Your task to perform on an android device: set the timer Image 0: 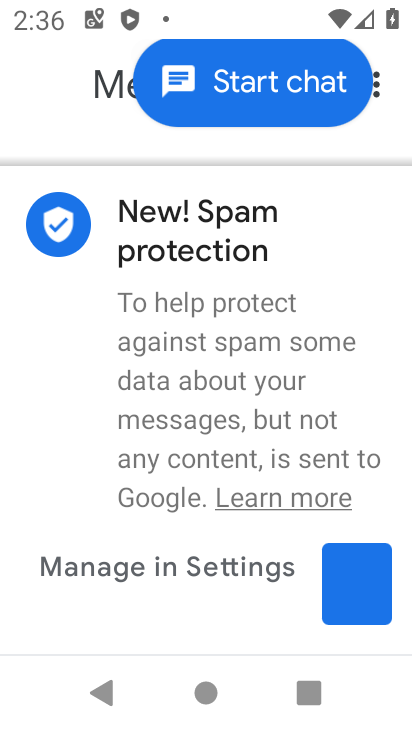
Step 0: press home button
Your task to perform on an android device: set the timer Image 1: 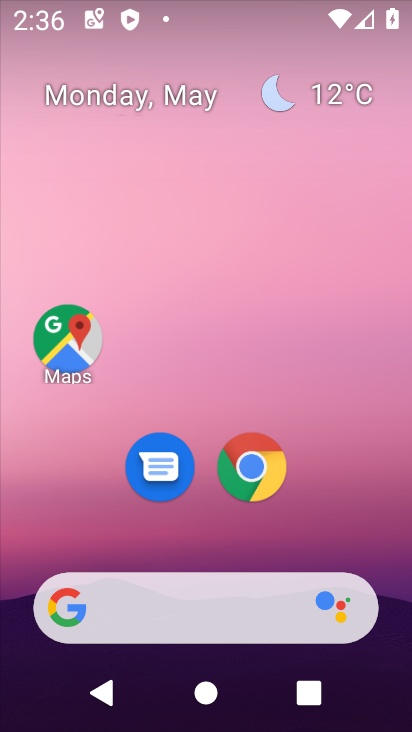
Step 1: drag from (381, 536) to (340, 205)
Your task to perform on an android device: set the timer Image 2: 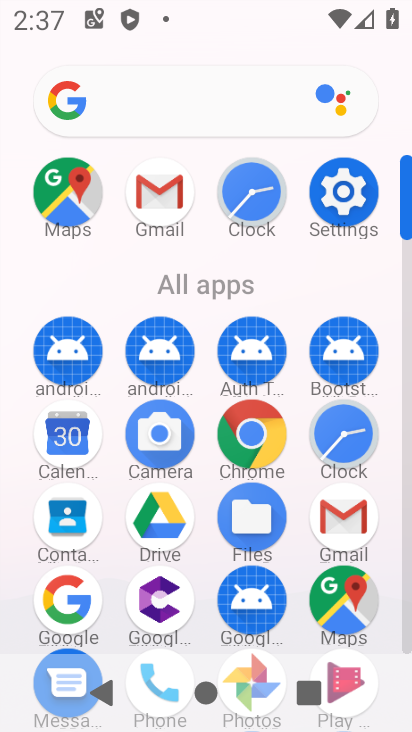
Step 2: click (342, 421)
Your task to perform on an android device: set the timer Image 3: 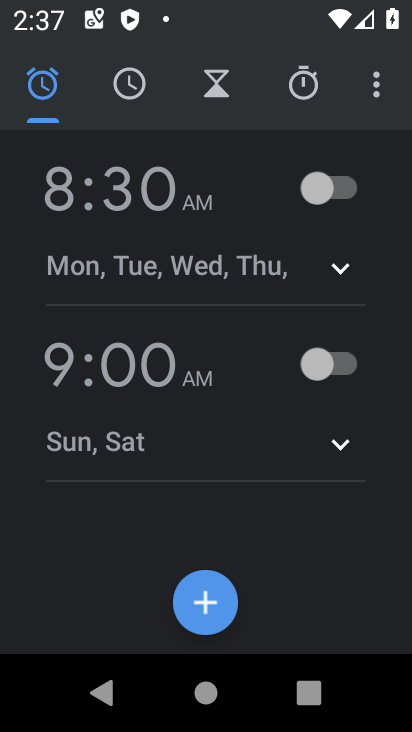
Step 3: click (190, 70)
Your task to perform on an android device: set the timer Image 4: 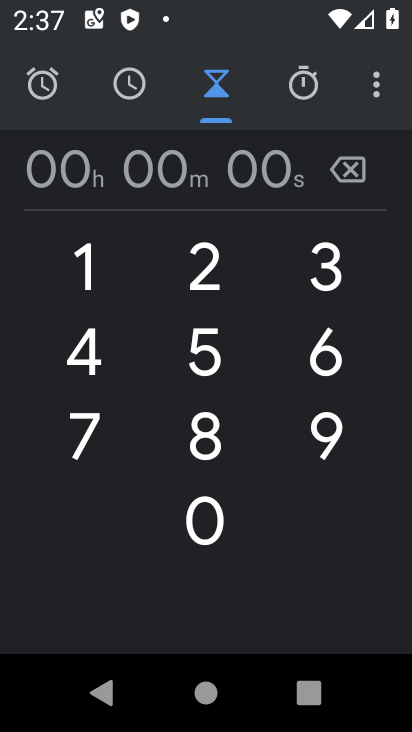
Step 4: type "99999"
Your task to perform on an android device: set the timer Image 5: 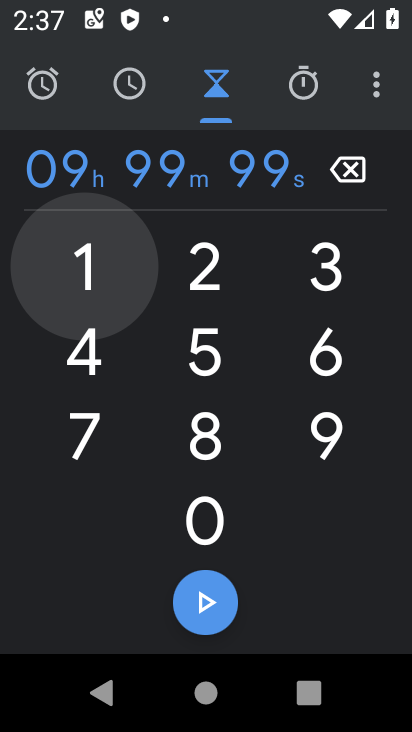
Step 5: click (219, 600)
Your task to perform on an android device: set the timer Image 6: 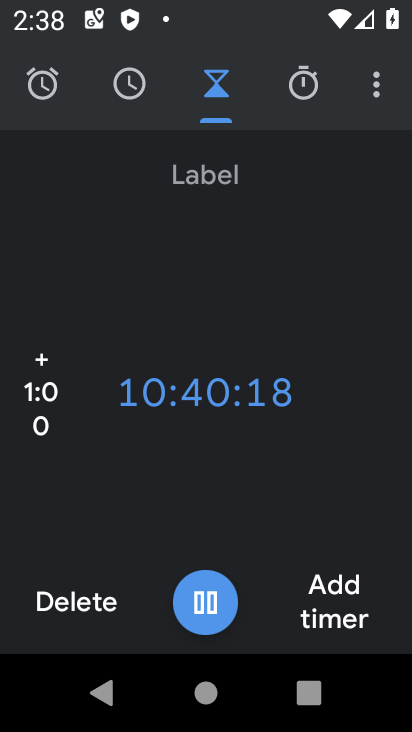
Step 6: task complete